Your task to perform on an android device: manage bookmarks in the chrome app Image 0: 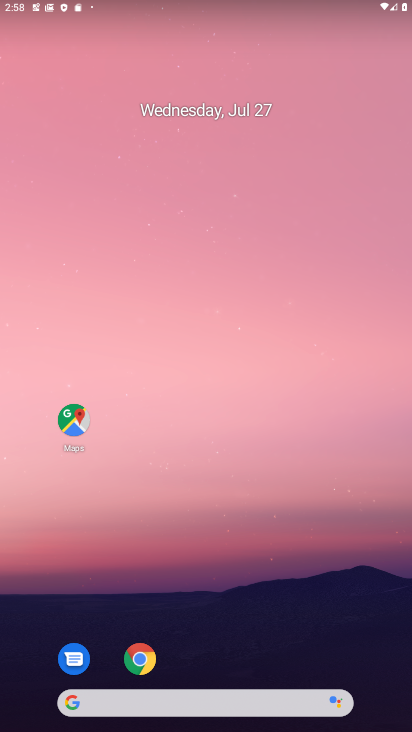
Step 0: click (142, 668)
Your task to perform on an android device: manage bookmarks in the chrome app Image 1: 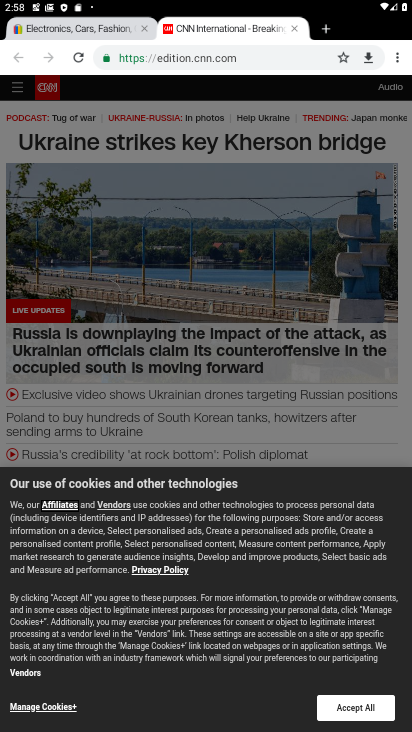
Step 1: click (400, 65)
Your task to perform on an android device: manage bookmarks in the chrome app Image 2: 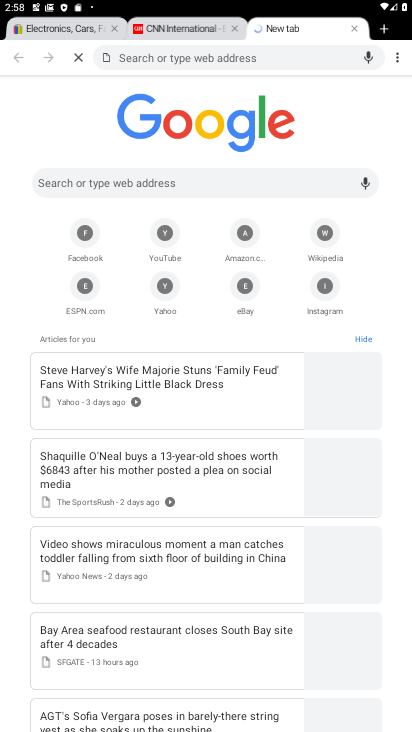
Step 2: click (398, 57)
Your task to perform on an android device: manage bookmarks in the chrome app Image 3: 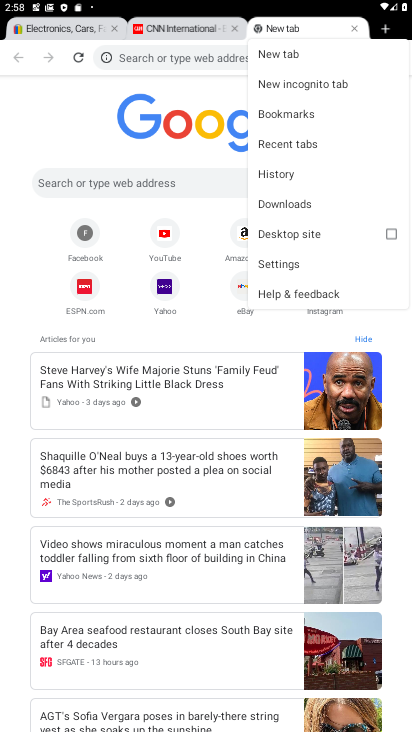
Step 3: click (270, 117)
Your task to perform on an android device: manage bookmarks in the chrome app Image 4: 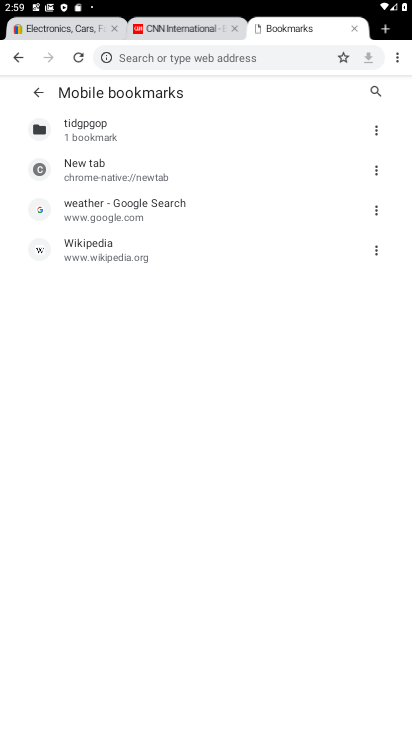
Step 4: click (101, 164)
Your task to perform on an android device: manage bookmarks in the chrome app Image 5: 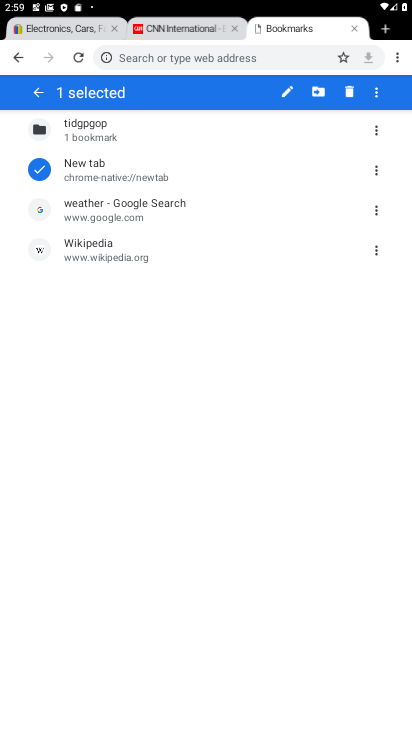
Step 5: click (361, 96)
Your task to perform on an android device: manage bookmarks in the chrome app Image 6: 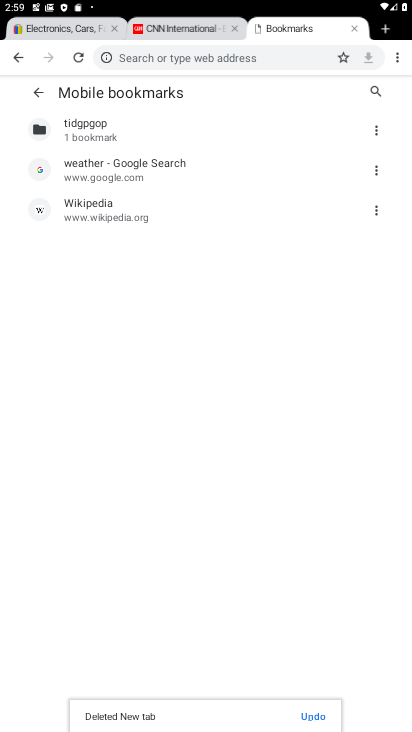
Step 6: task complete